Your task to perform on an android device: Open settings on Google Maps Image 0: 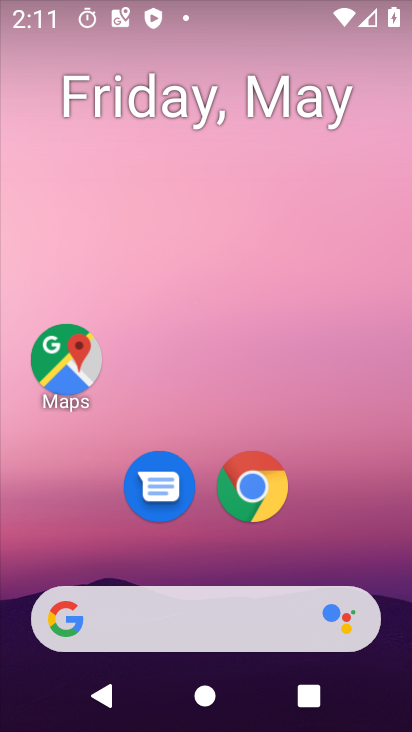
Step 0: click (61, 366)
Your task to perform on an android device: Open settings on Google Maps Image 1: 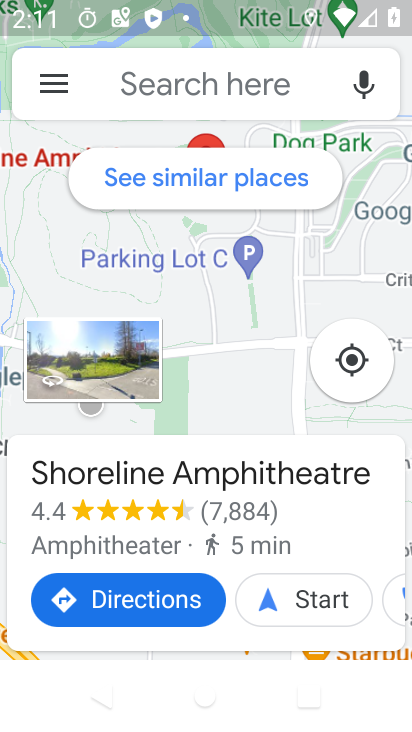
Step 1: click (45, 80)
Your task to perform on an android device: Open settings on Google Maps Image 2: 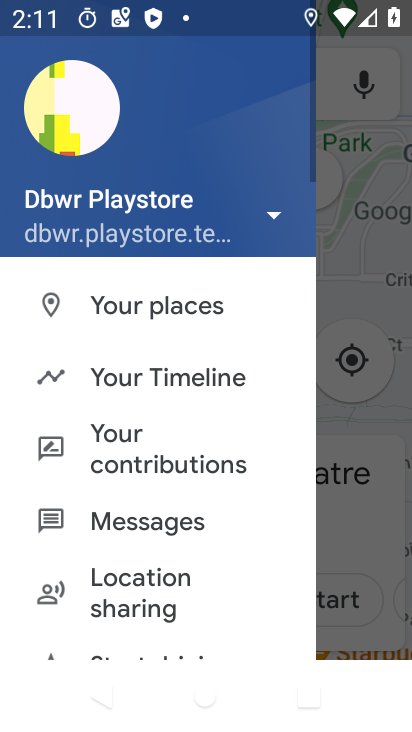
Step 2: drag from (246, 624) to (215, 101)
Your task to perform on an android device: Open settings on Google Maps Image 3: 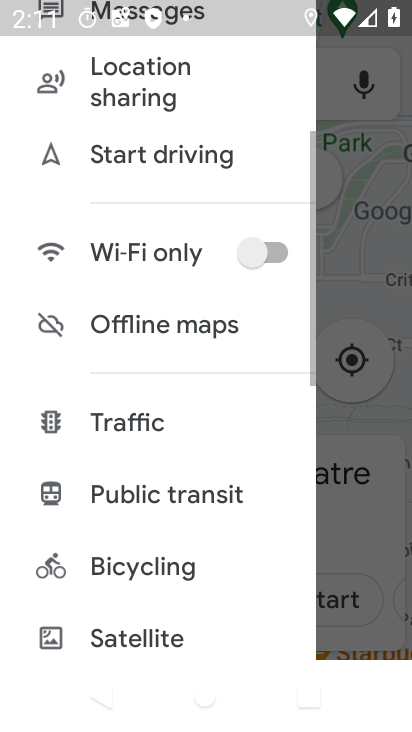
Step 3: drag from (241, 527) to (183, 89)
Your task to perform on an android device: Open settings on Google Maps Image 4: 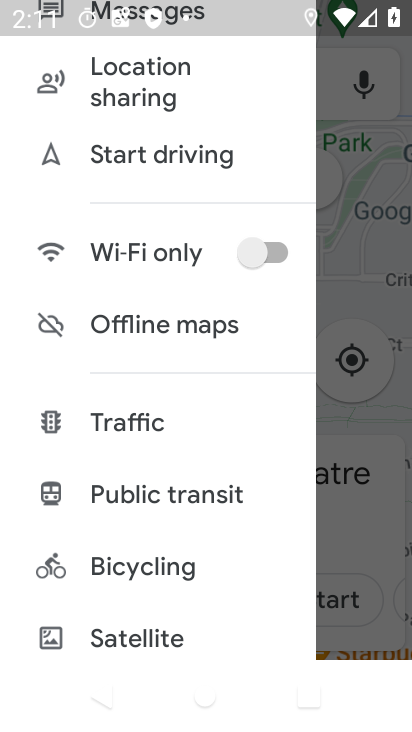
Step 4: drag from (233, 607) to (219, 174)
Your task to perform on an android device: Open settings on Google Maps Image 5: 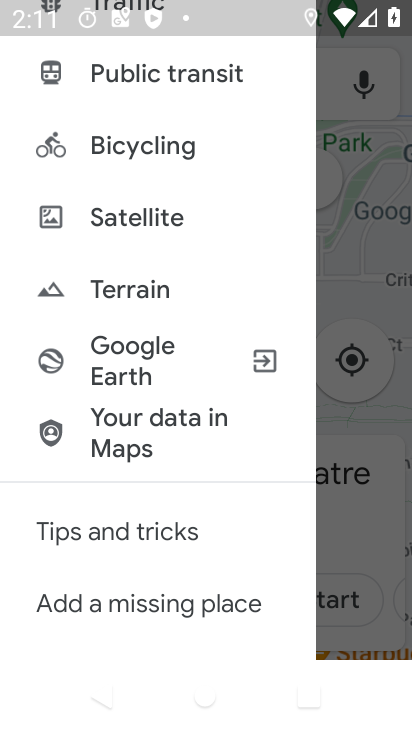
Step 5: drag from (216, 565) to (208, 145)
Your task to perform on an android device: Open settings on Google Maps Image 6: 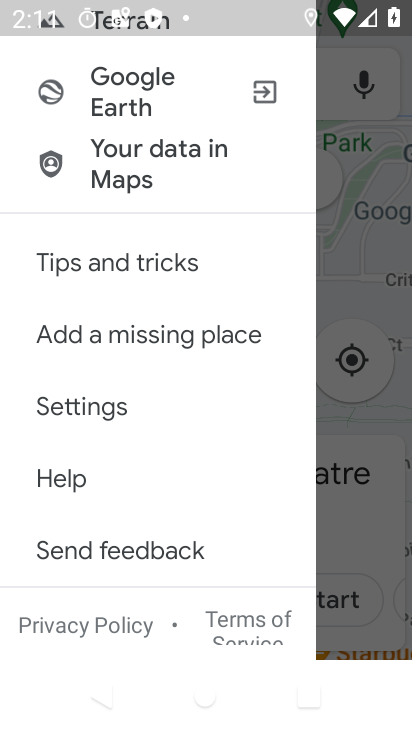
Step 6: click (59, 404)
Your task to perform on an android device: Open settings on Google Maps Image 7: 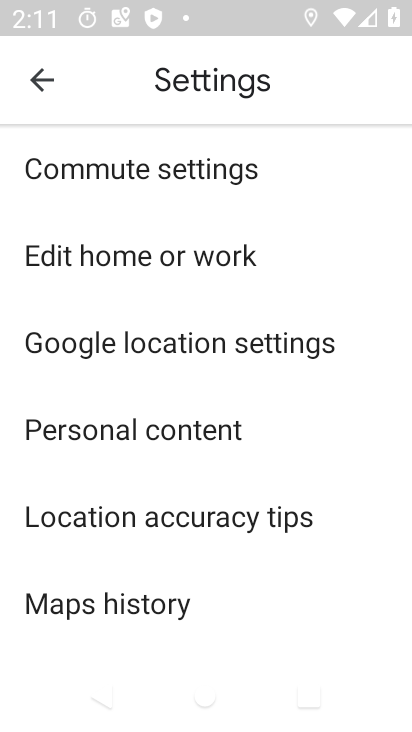
Step 7: drag from (249, 632) to (255, 229)
Your task to perform on an android device: Open settings on Google Maps Image 8: 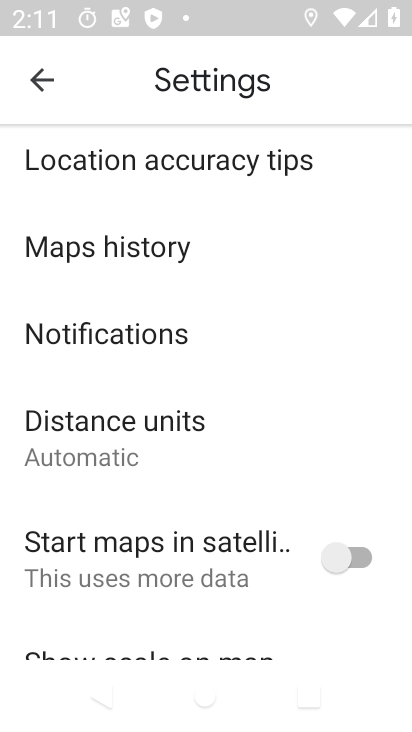
Step 8: drag from (280, 593) to (273, 280)
Your task to perform on an android device: Open settings on Google Maps Image 9: 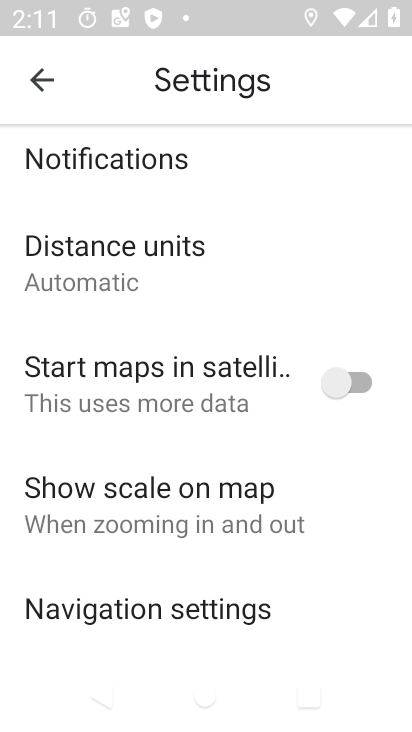
Step 9: drag from (296, 621) to (273, 213)
Your task to perform on an android device: Open settings on Google Maps Image 10: 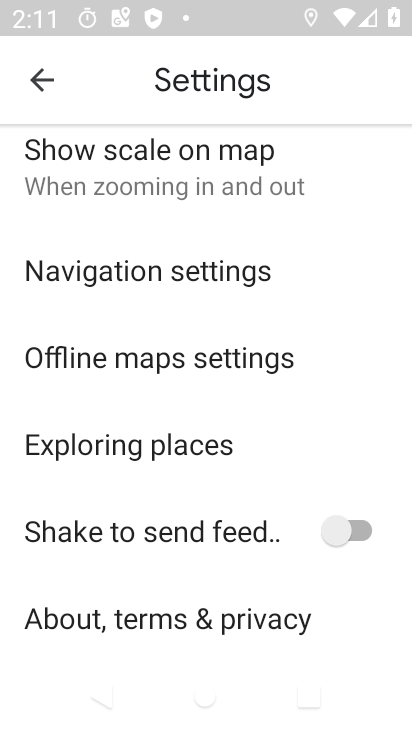
Step 10: drag from (278, 642) to (280, 232)
Your task to perform on an android device: Open settings on Google Maps Image 11: 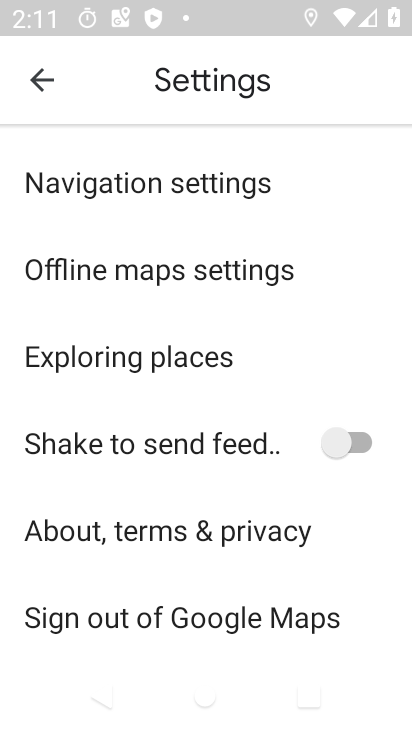
Step 11: click (215, 269)
Your task to perform on an android device: Open settings on Google Maps Image 12: 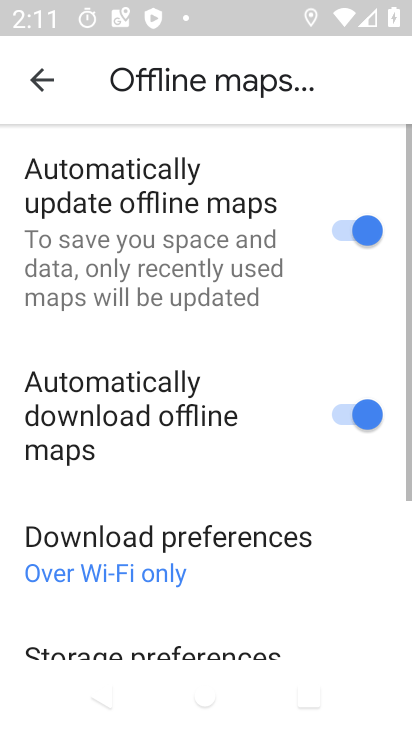
Step 12: task complete